Your task to perform on an android device: Open Android settings Image 0: 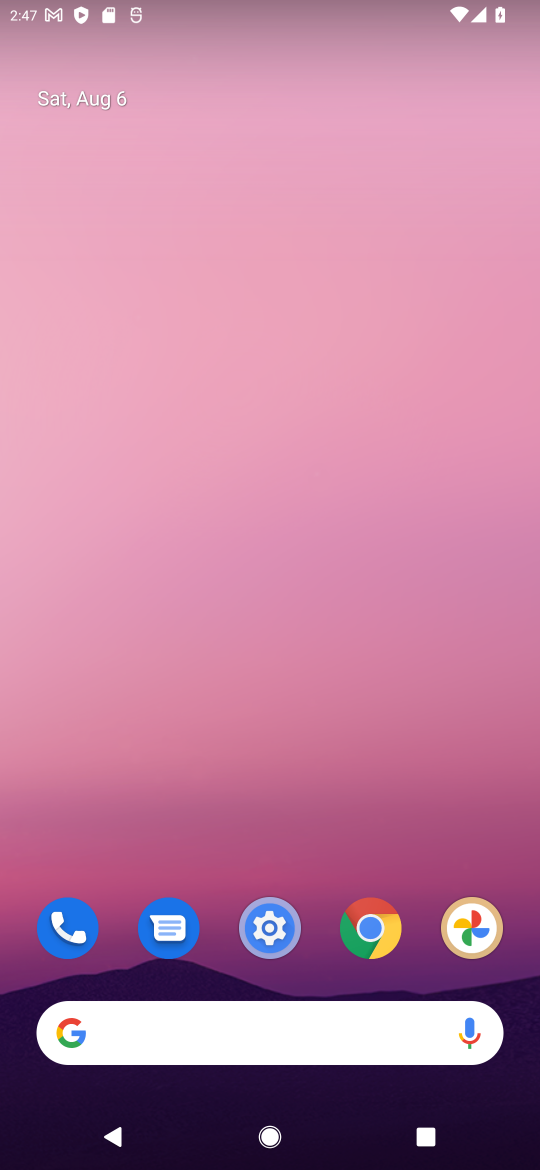
Step 0: drag from (290, 713) to (378, 286)
Your task to perform on an android device: Open Android settings Image 1: 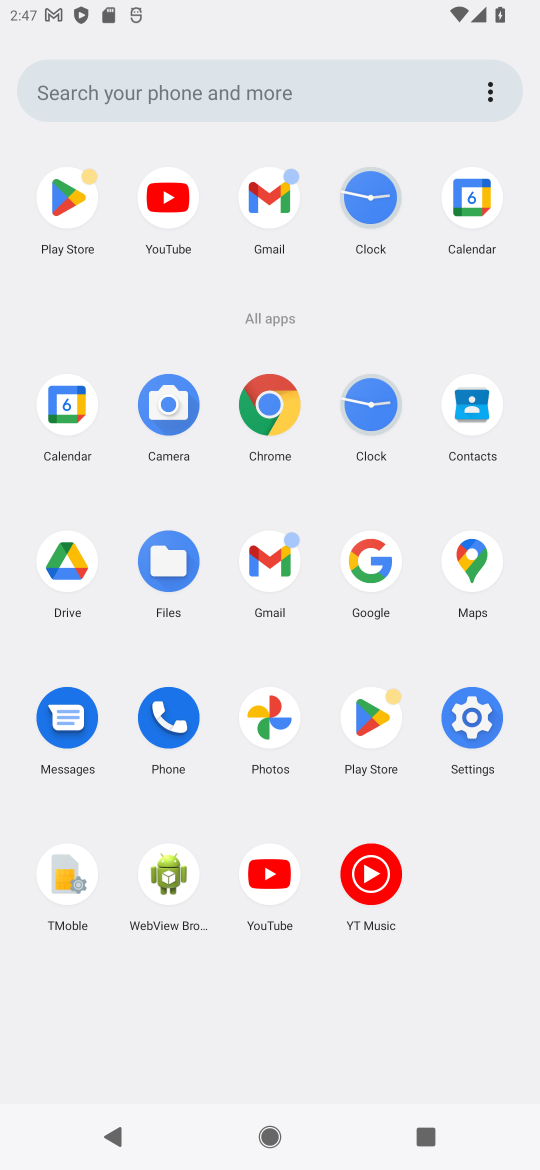
Step 1: click (476, 720)
Your task to perform on an android device: Open Android settings Image 2: 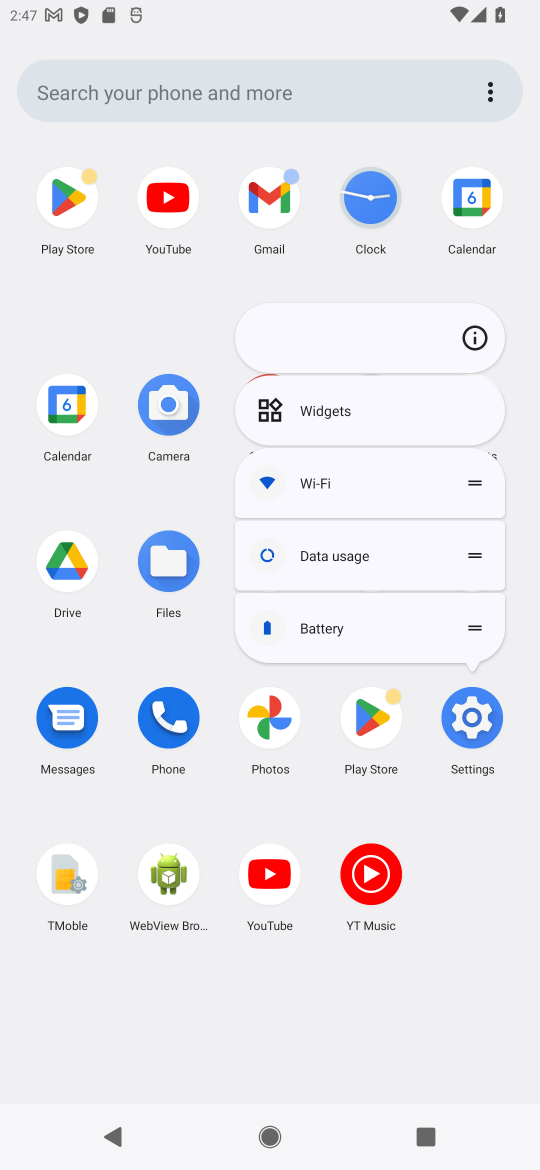
Step 2: click (488, 324)
Your task to perform on an android device: Open Android settings Image 3: 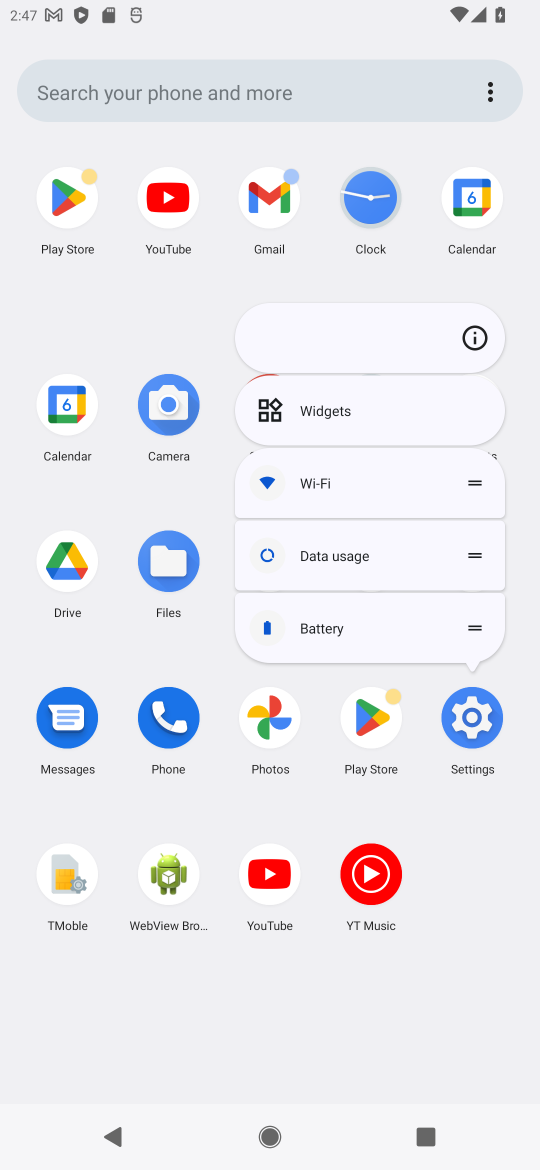
Step 3: click (472, 319)
Your task to perform on an android device: Open Android settings Image 4: 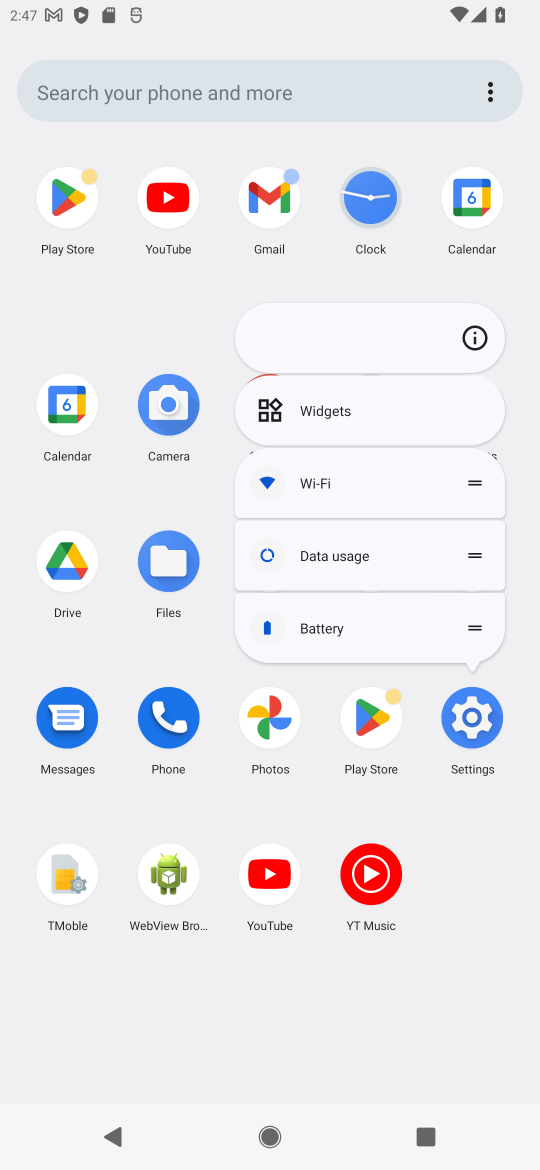
Step 4: click (468, 330)
Your task to perform on an android device: Open Android settings Image 5: 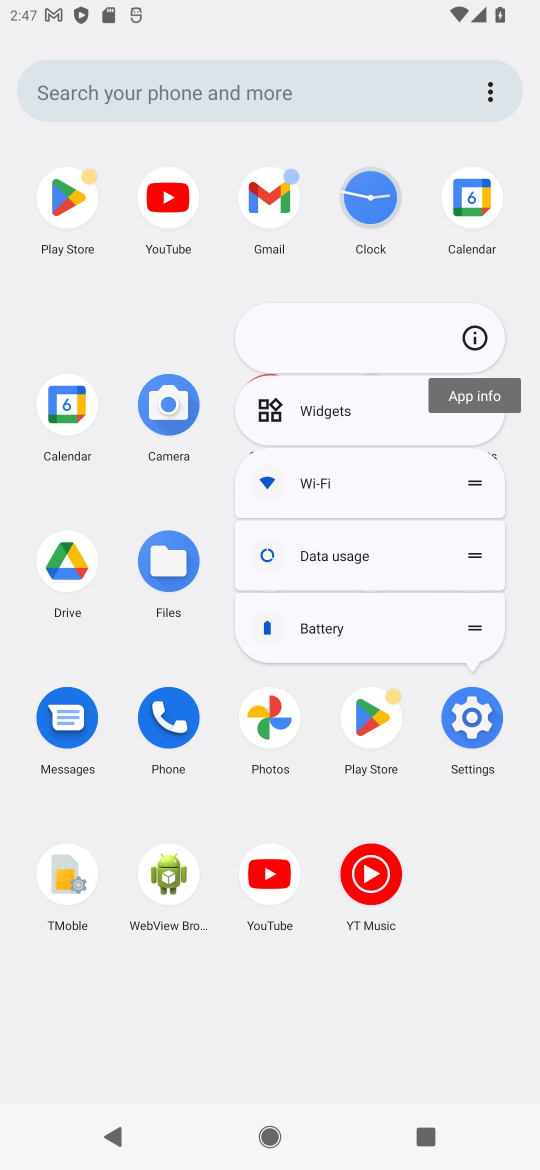
Step 5: click (468, 330)
Your task to perform on an android device: Open Android settings Image 6: 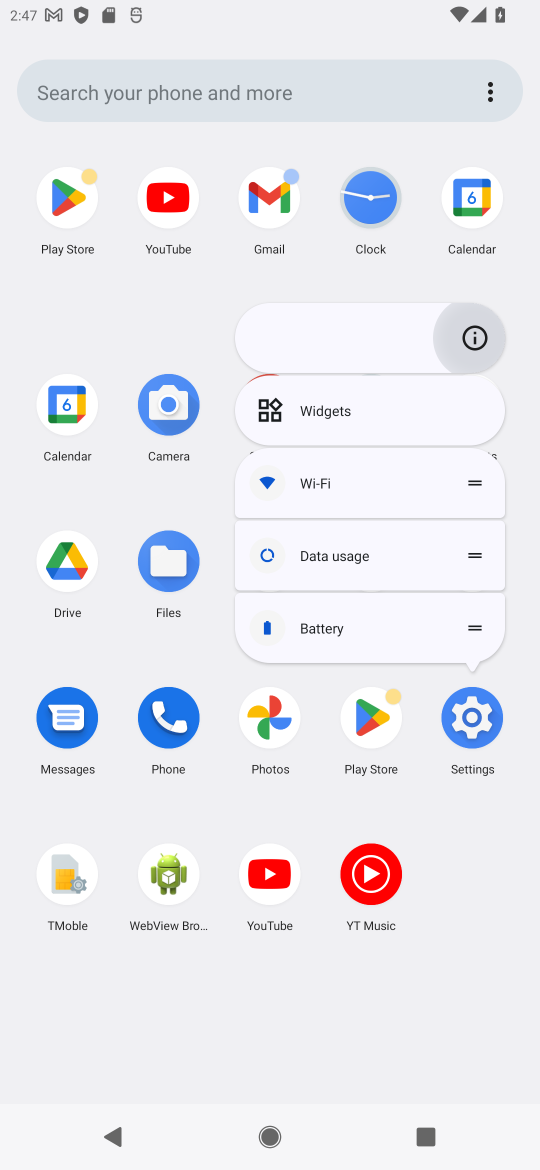
Step 6: click (468, 330)
Your task to perform on an android device: Open Android settings Image 7: 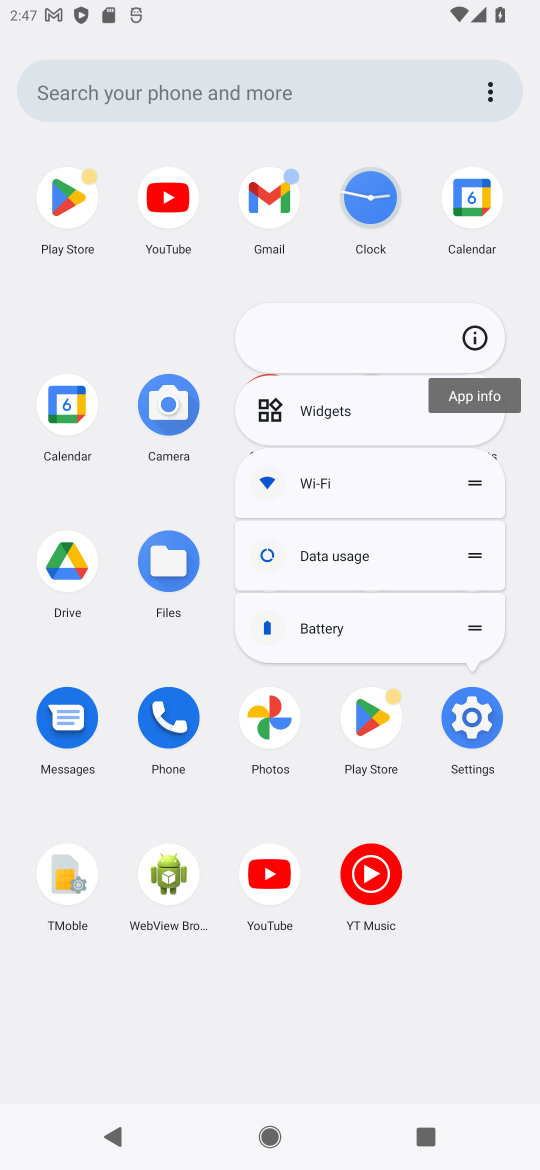
Step 7: click (476, 329)
Your task to perform on an android device: Open Android settings Image 8: 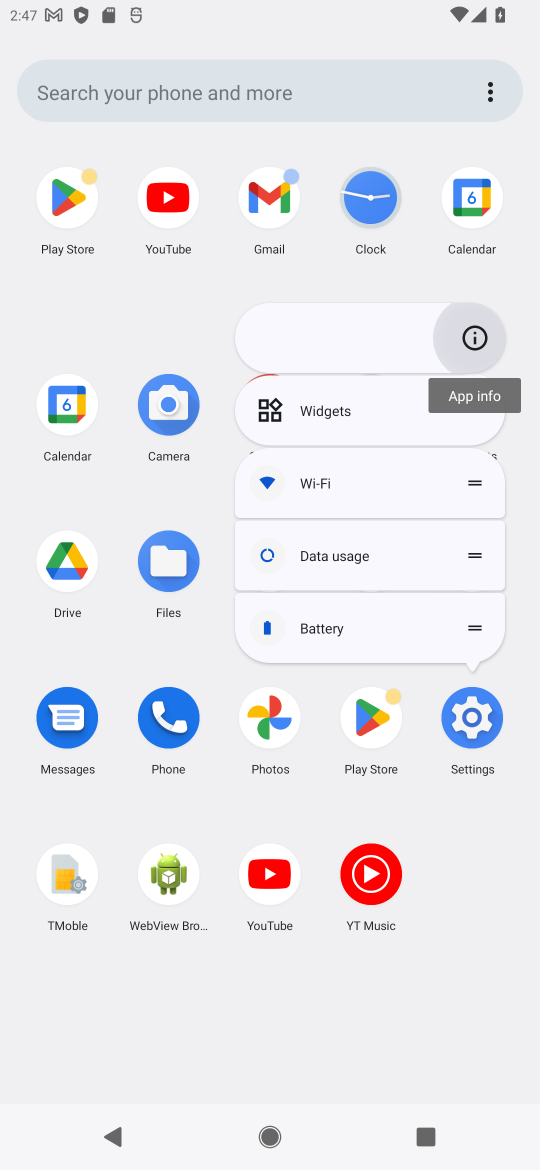
Step 8: click (476, 329)
Your task to perform on an android device: Open Android settings Image 9: 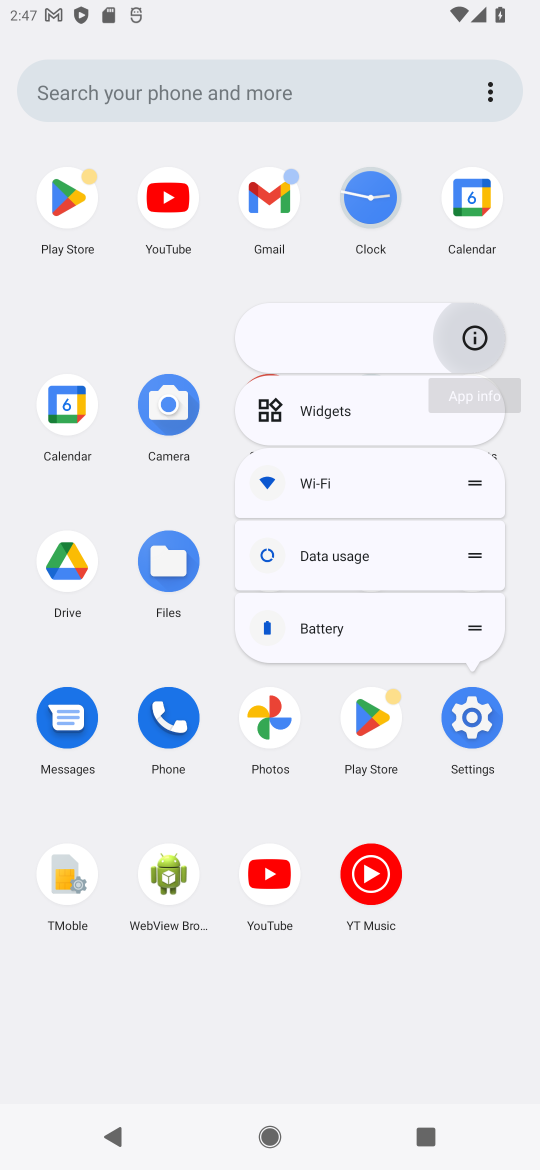
Step 9: click (476, 329)
Your task to perform on an android device: Open Android settings Image 10: 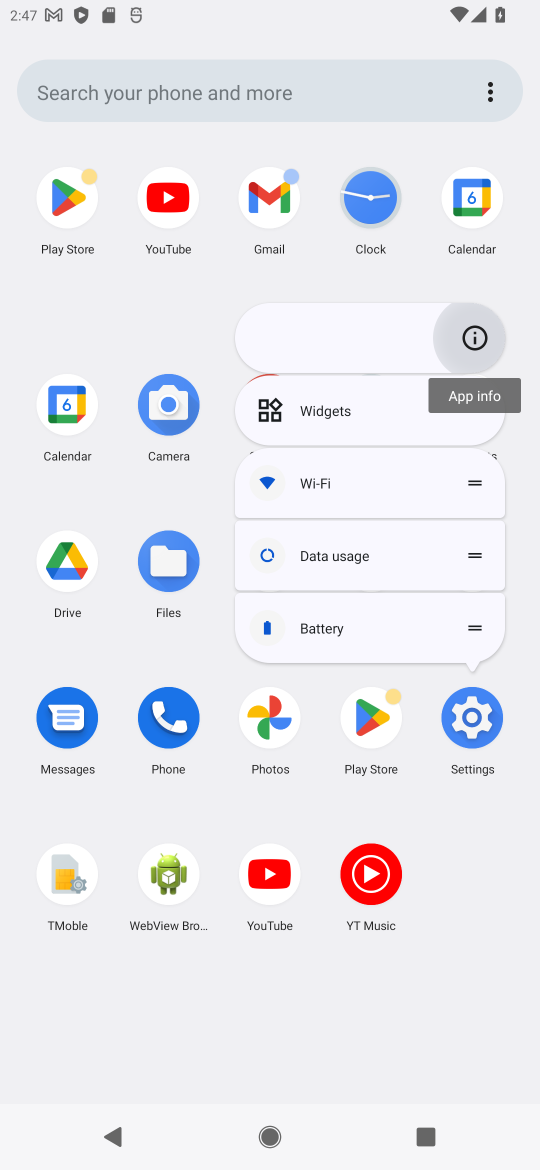
Step 10: click (476, 329)
Your task to perform on an android device: Open Android settings Image 11: 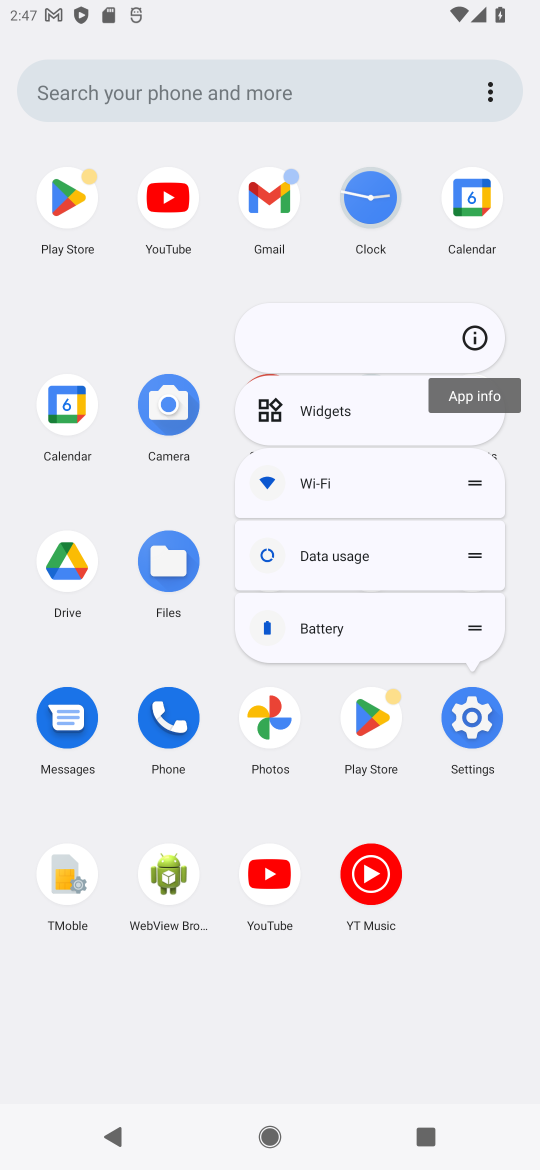
Step 11: click (476, 332)
Your task to perform on an android device: Open Android settings Image 12: 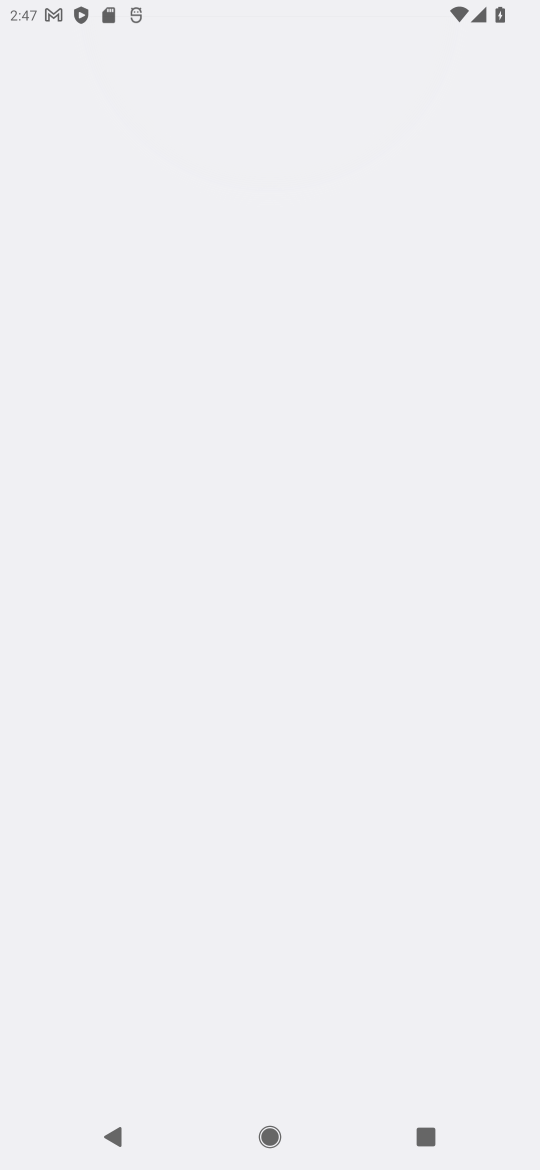
Step 12: click (476, 332)
Your task to perform on an android device: Open Android settings Image 13: 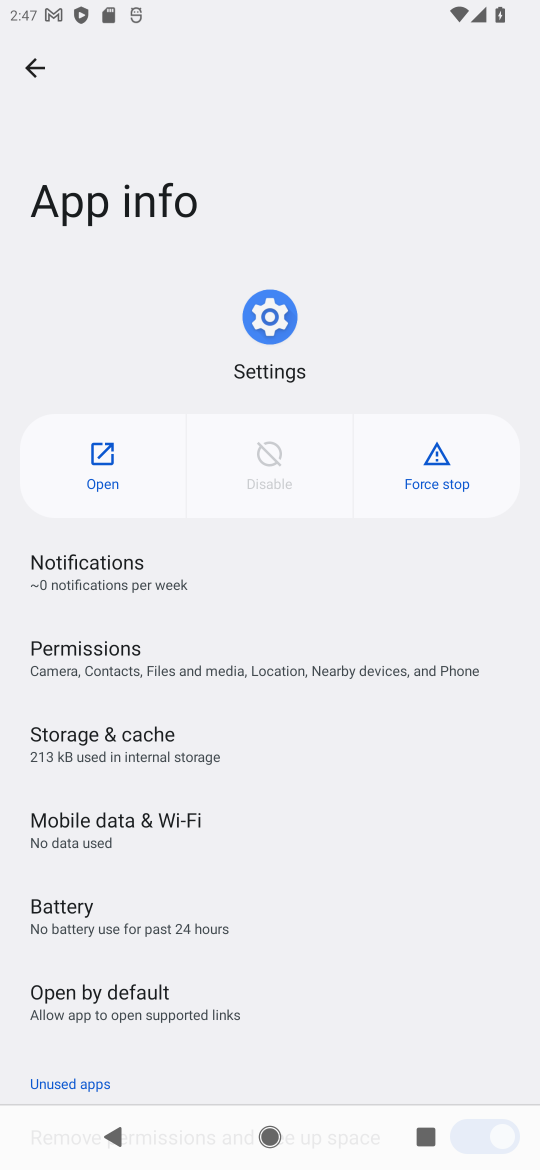
Step 13: click (99, 448)
Your task to perform on an android device: Open Android settings Image 14: 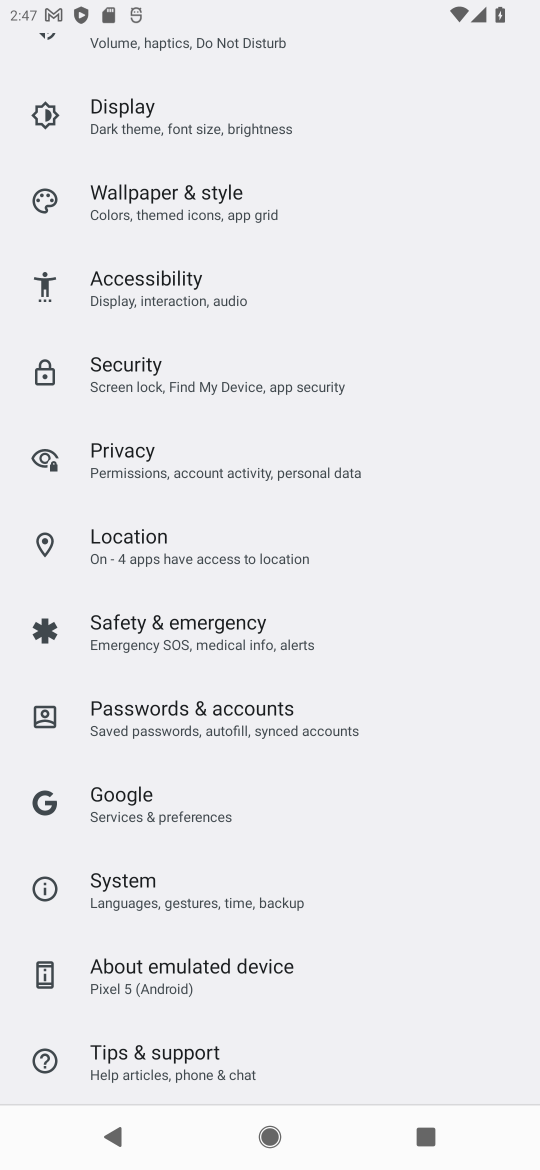
Step 14: drag from (286, 950) to (445, 30)
Your task to perform on an android device: Open Android settings Image 15: 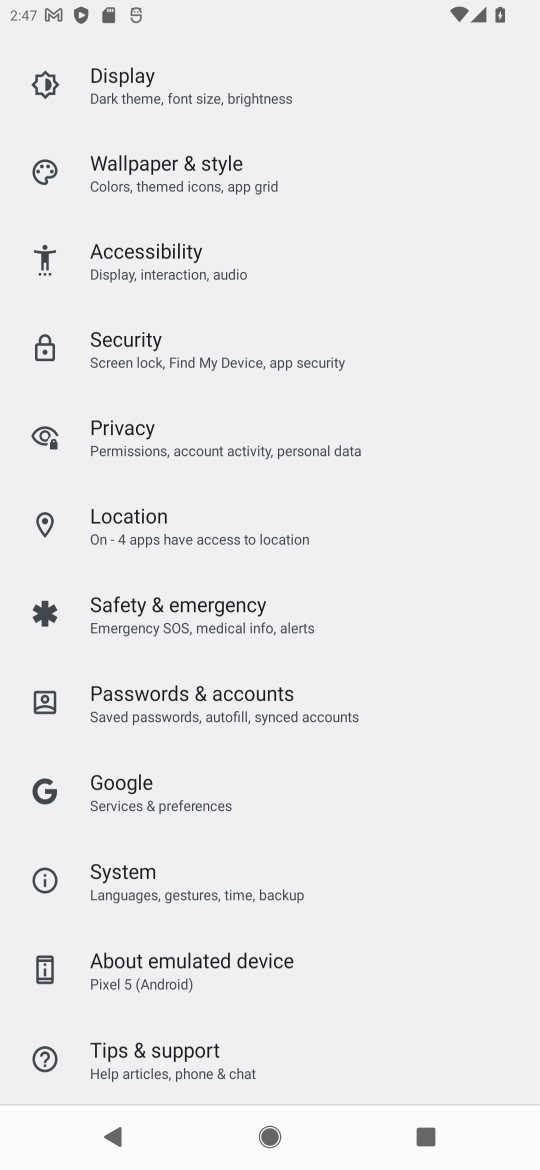
Step 15: drag from (246, 788) to (386, 323)
Your task to perform on an android device: Open Android settings Image 16: 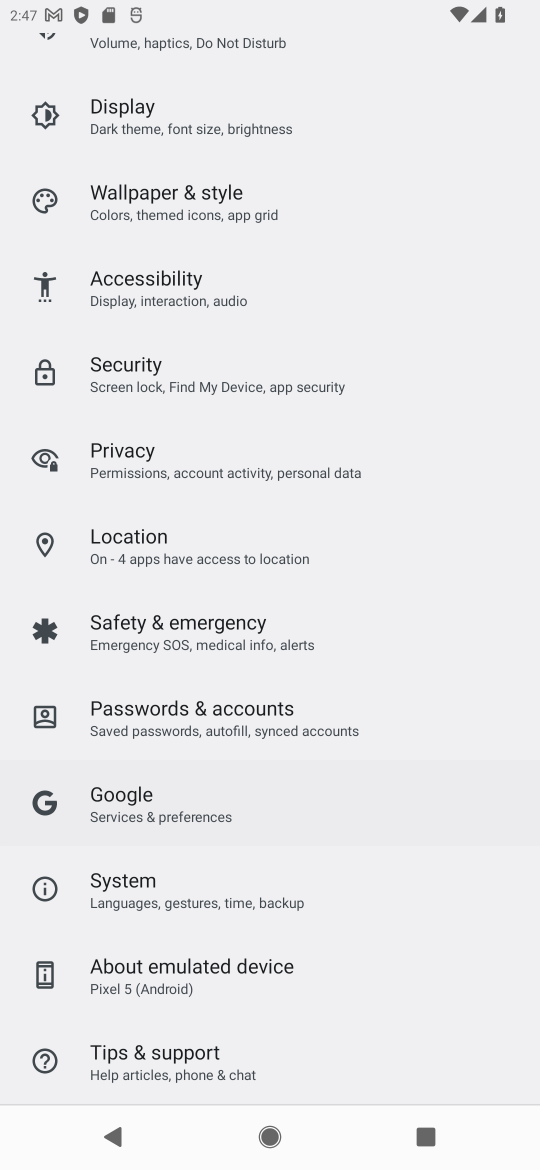
Step 16: drag from (201, 1016) to (276, 703)
Your task to perform on an android device: Open Android settings Image 17: 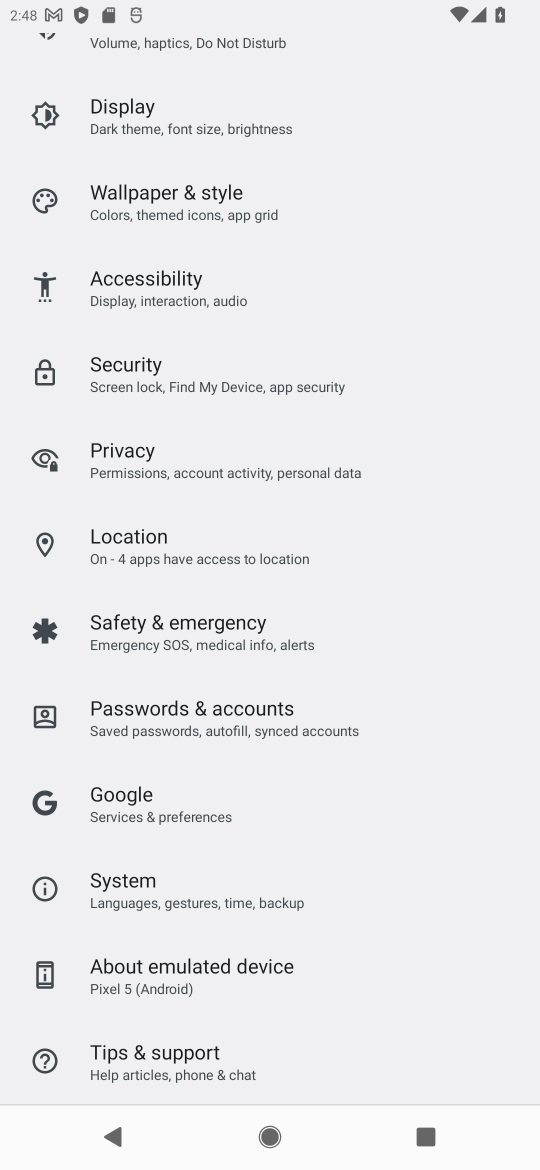
Step 17: click (233, 970)
Your task to perform on an android device: Open Android settings Image 18: 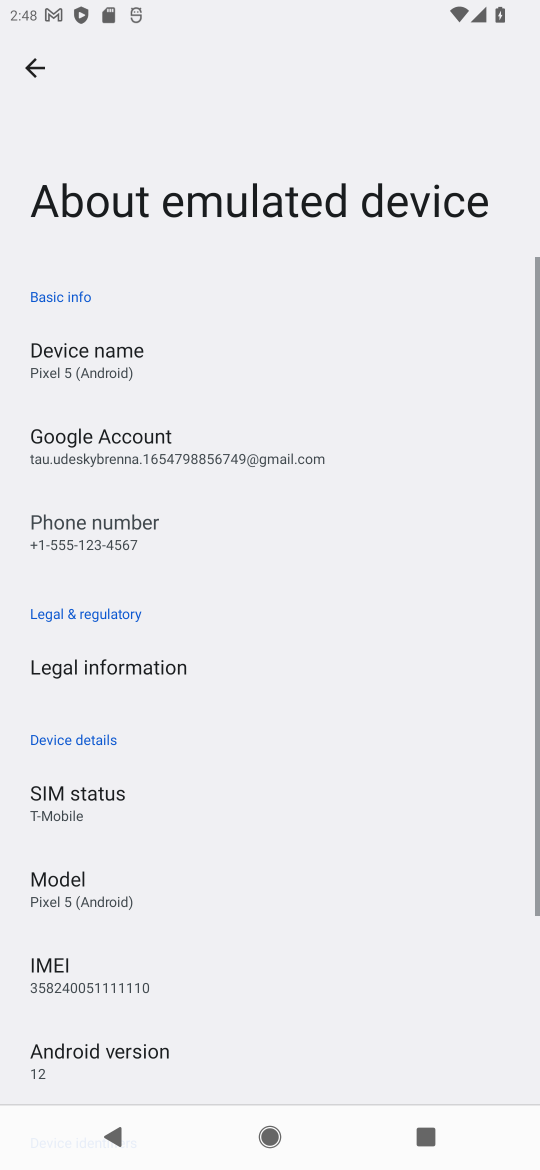
Step 18: drag from (227, 913) to (301, 59)
Your task to perform on an android device: Open Android settings Image 19: 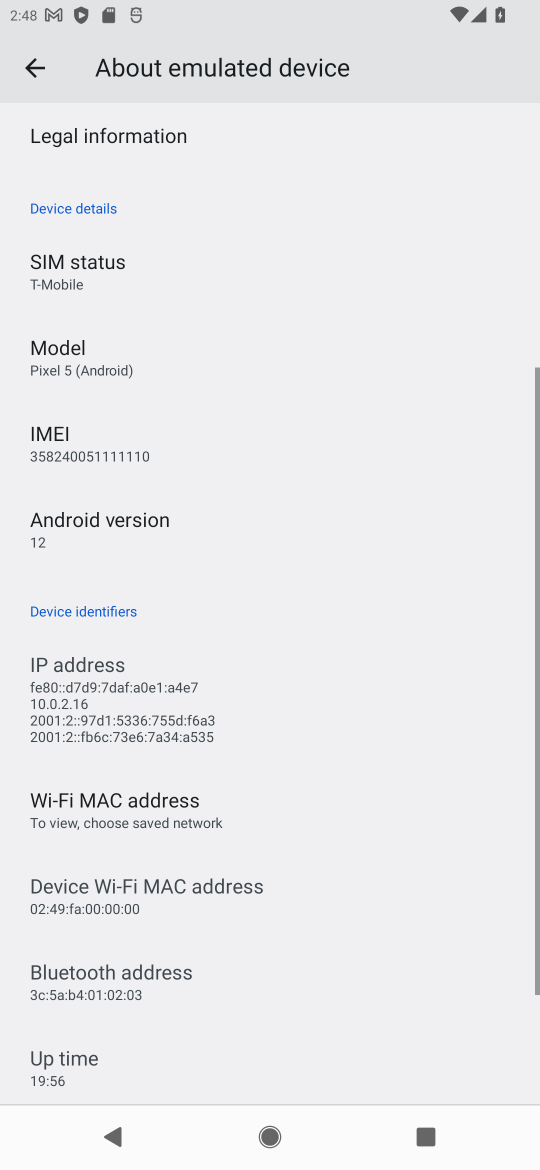
Step 19: drag from (198, 965) to (273, 329)
Your task to perform on an android device: Open Android settings Image 20: 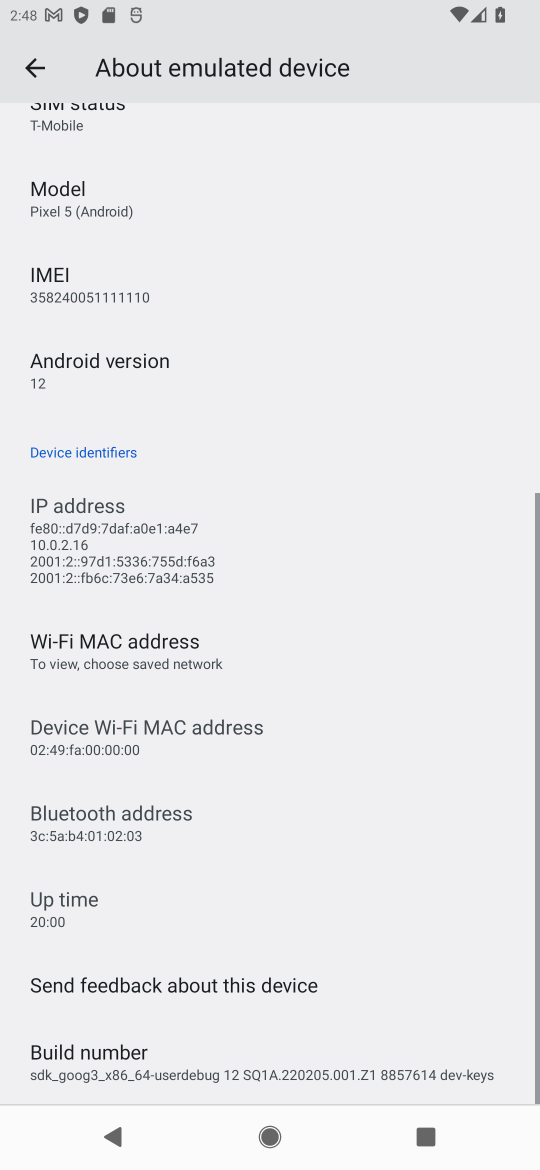
Step 20: drag from (132, 971) to (229, 352)
Your task to perform on an android device: Open Android settings Image 21: 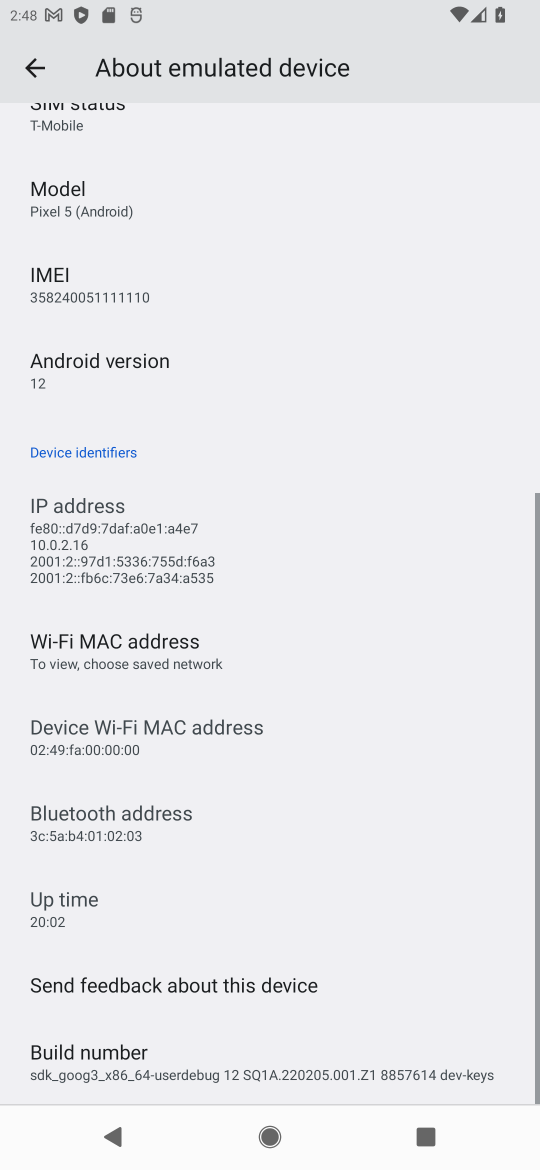
Step 21: drag from (252, 938) to (302, 436)
Your task to perform on an android device: Open Android settings Image 22: 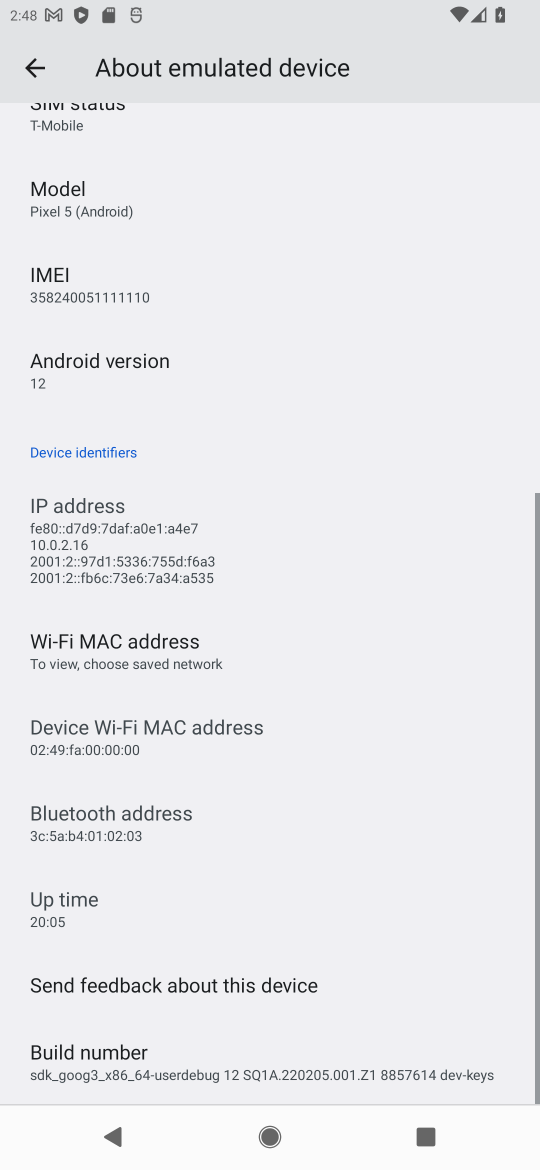
Step 22: click (168, 383)
Your task to perform on an android device: Open Android settings Image 23: 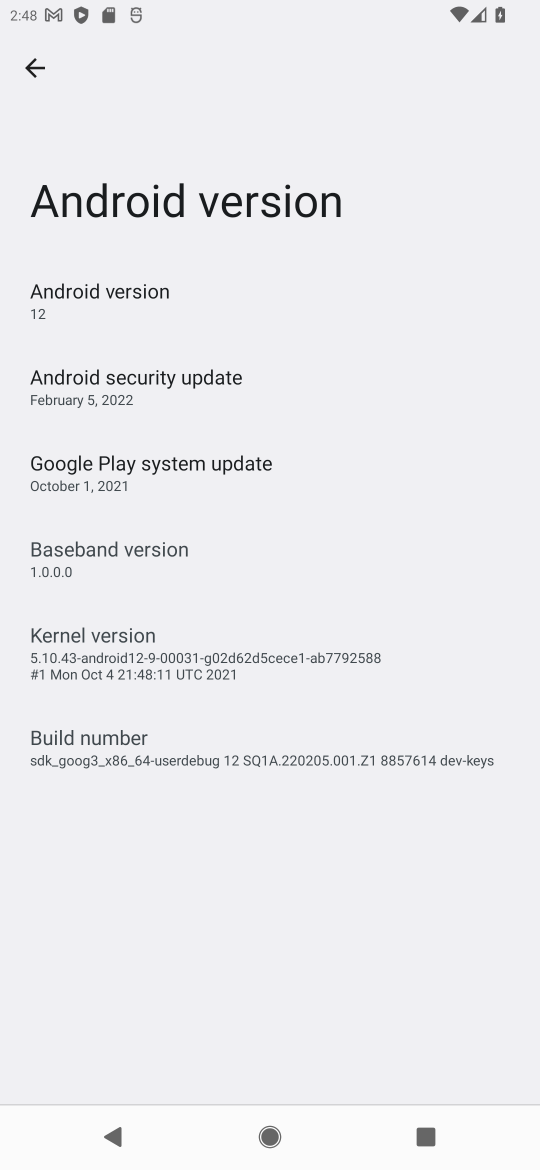
Step 23: task complete